Your task to perform on an android device: toggle notification dots Image 0: 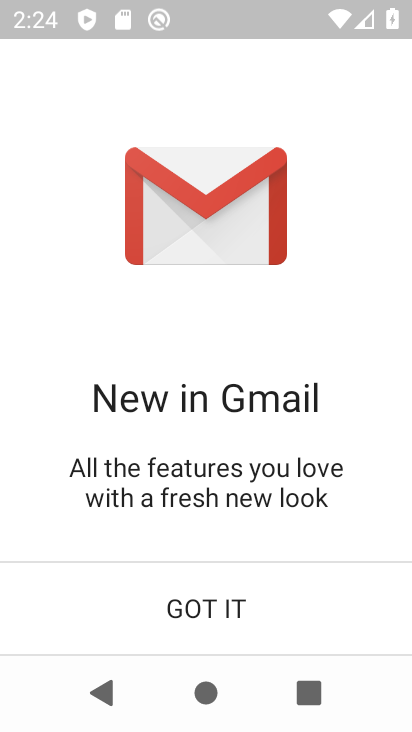
Step 0: press home button
Your task to perform on an android device: toggle notification dots Image 1: 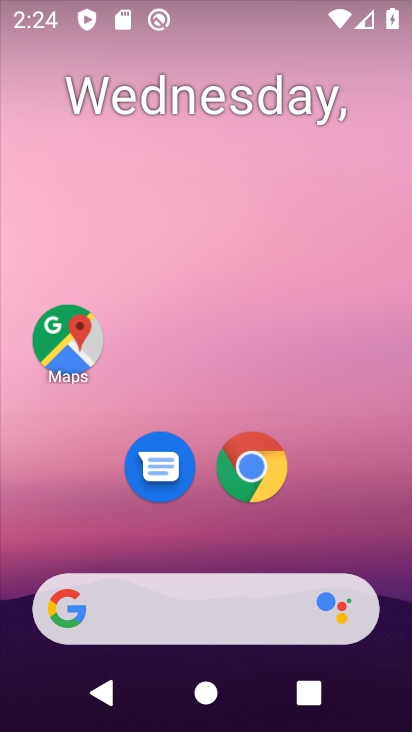
Step 1: click (331, 165)
Your task to perform on an android device: toggle notification dots Image 2: 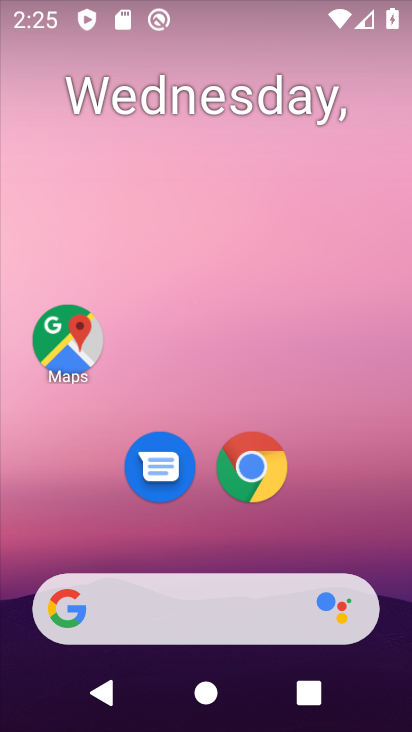
Step 2: drag from (332, 289) to (338, 113)
Your task to perform on an android device: toggle notification dots Image 3: 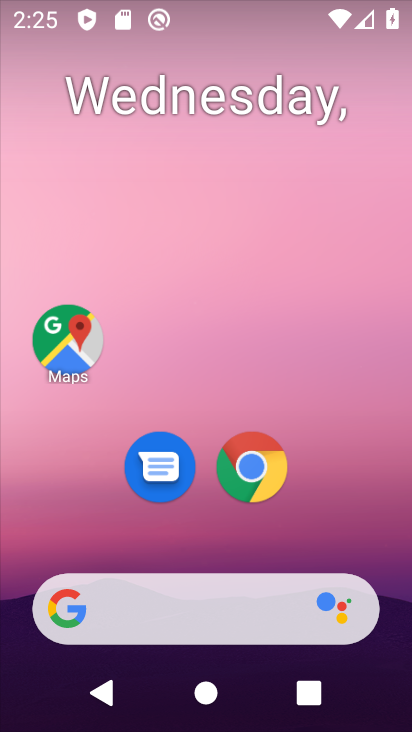
Step 3: drag from (195, 596) to (266, 232)
Your task to perform on an android device: toggle notification dots Image 4: 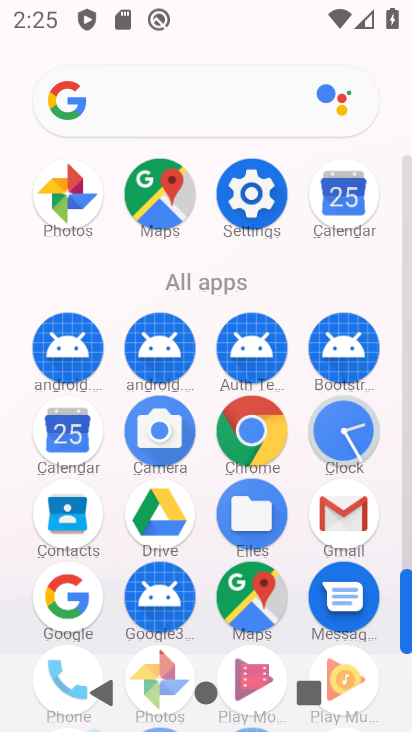
Step 4: click (243, 193)
Your task to perform on an android device: toggle notification dots Image 5: 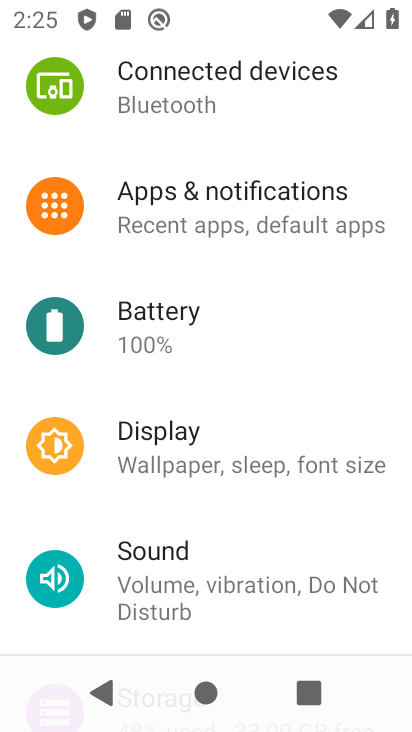
Step 5: drag from (257, 143) to (250, 444)
Your task to perform on an android device: toggle notification dots Image 6: 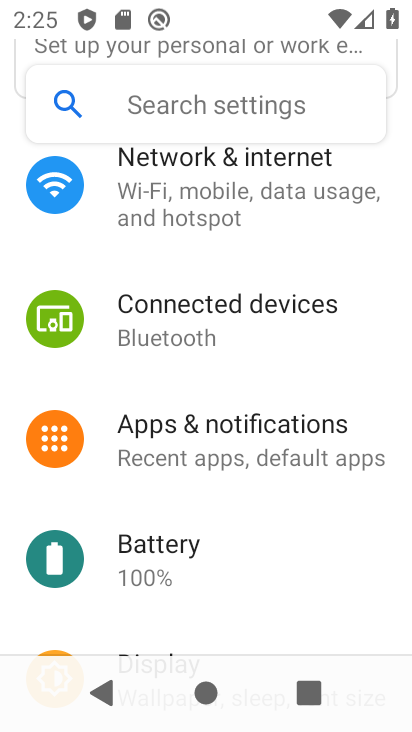
Step 6: click (226, 81)
Your task to perform on an android device: toggle notification dots Image 7: 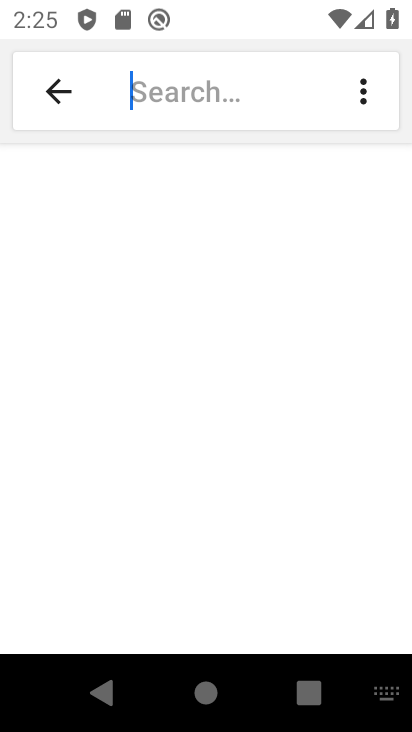
Step 7: click (200, 84)
Your task to perform on an android device: toggle notification dots Image 8: 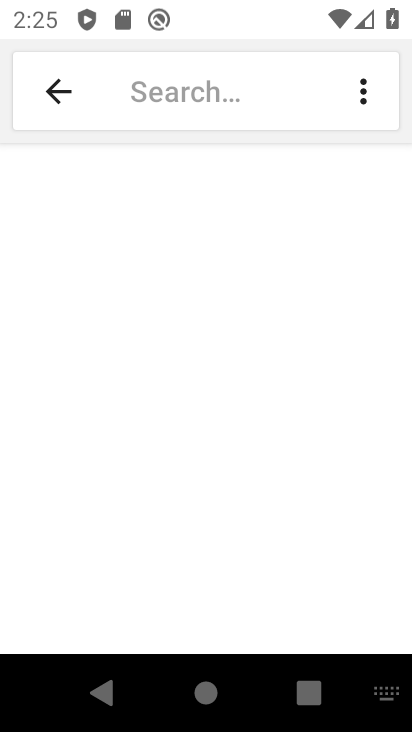
Step 8: type " notification dots"
Your task to perform on an android device: toggle notification dots Image 9: 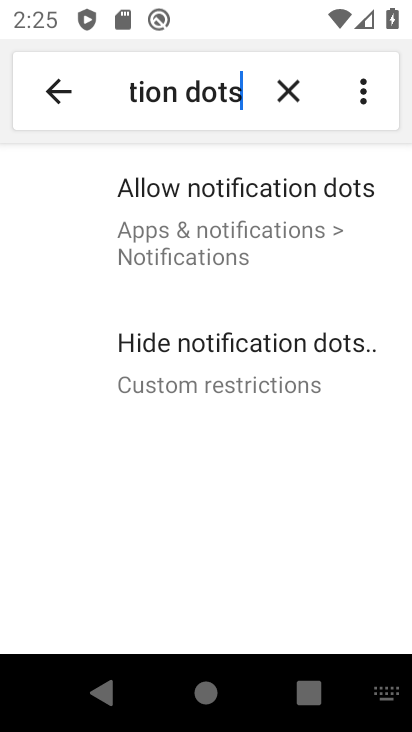
Step 9: click (254, 228)
Your task to perform on an android device: toggle notification dots Image 10: 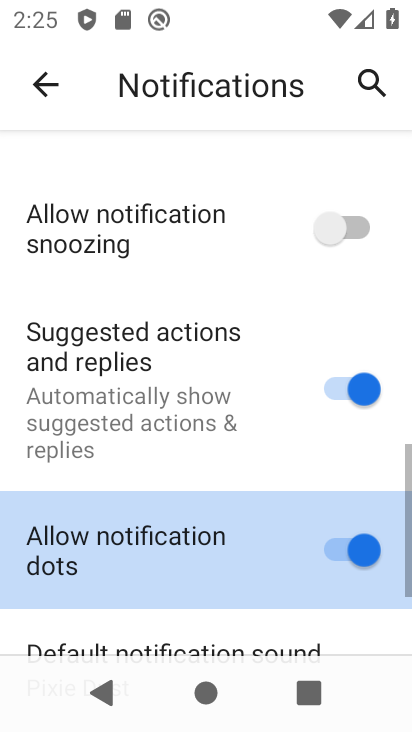
Step 10: click (326, 538)
Your task to perform on an android device: toggle notification dots Image 11: 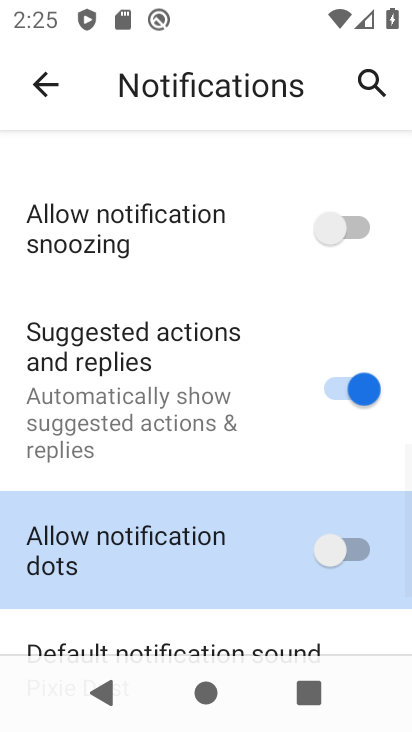
Step 11: task complete